Your task to perform on an android device: set an alarm Image 0: 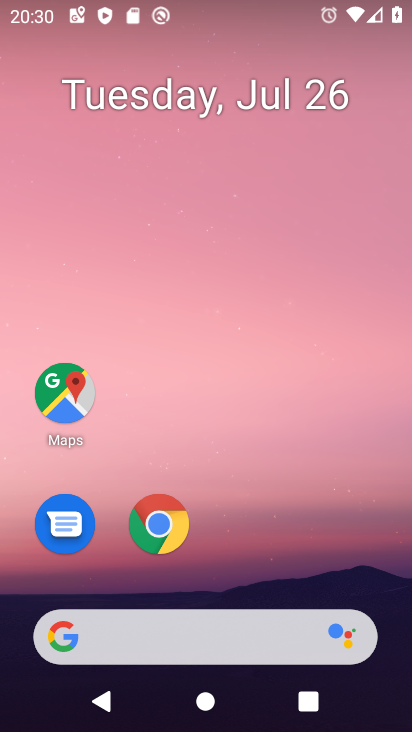
Step 0: drag from (247, 491) to (175, 13)
Your task to perform on an android device: set an alarm Image 1: 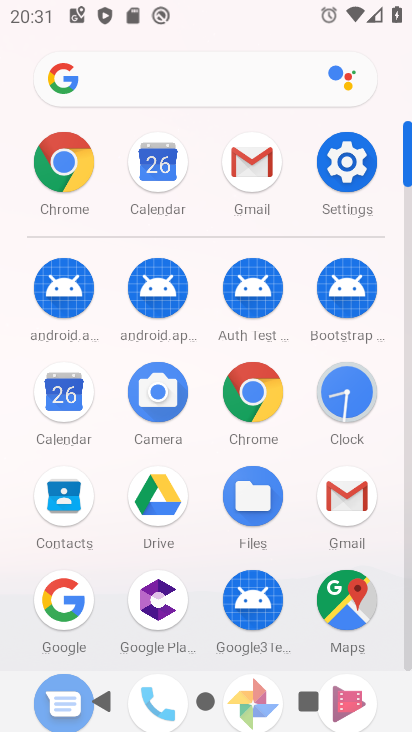
Step 1: click (357, 381)
Your task to perform on an android device: set an alarm Image 2: 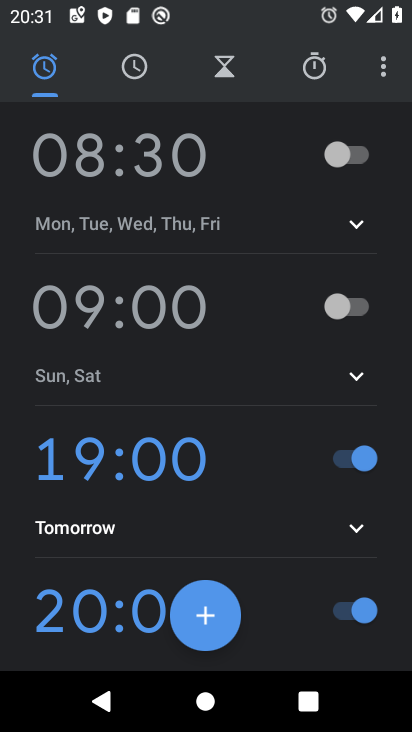
Step 2: click (209, 623)
Your task to perform on an android device: set an alarm Image 3: 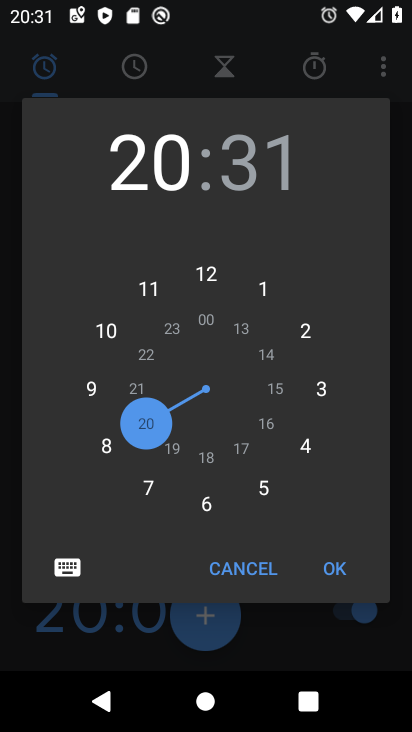
Step 3: click (233, 161)
Your task to perform on an android device: set an alarm Image 4: 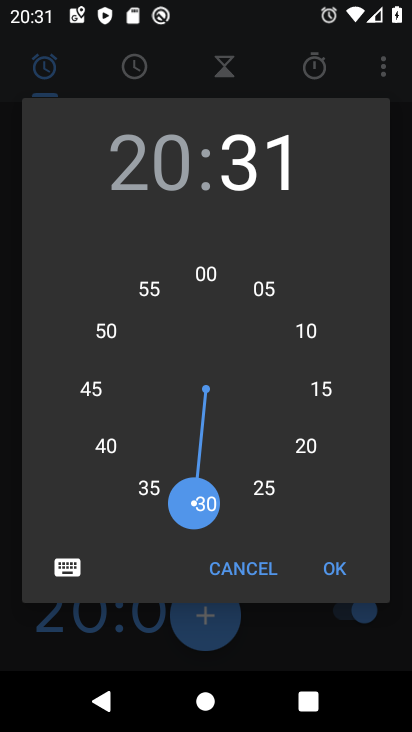
Step 4: click (209, 508)
Your task to perform on an android device: set an alarm Image 5: 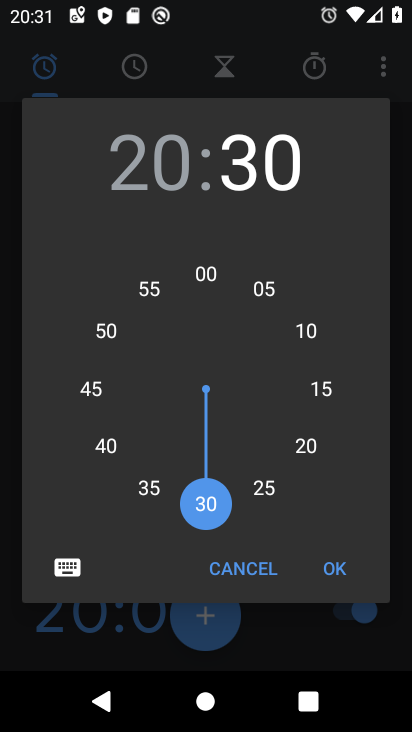
Step 5: click (330, 567)
Your task to perform on an android device: set an alarm Image 6: 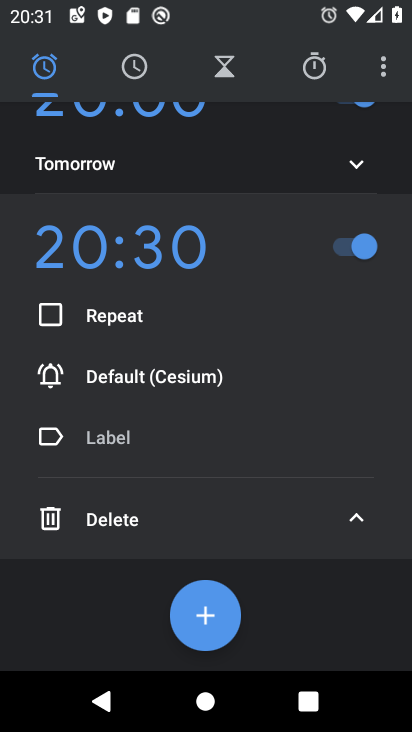
Step 6: task complete